Your task to perform on an android device: turn on airplane mode Image 0: 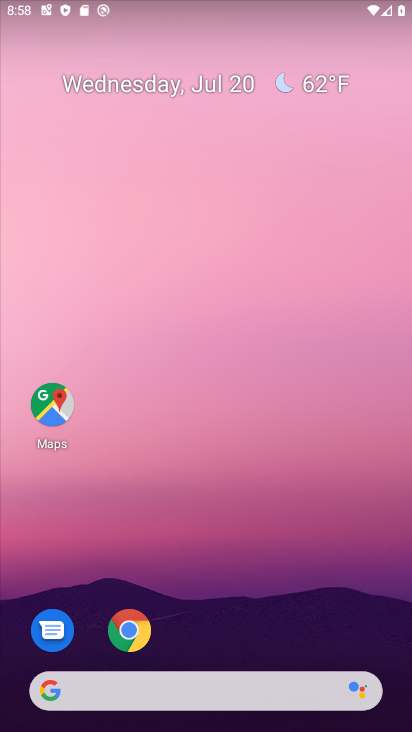
Step 0: drag from (187, 684) to (200, 118)
Your task to perform on an android device: turn on airplane mode Image 1: 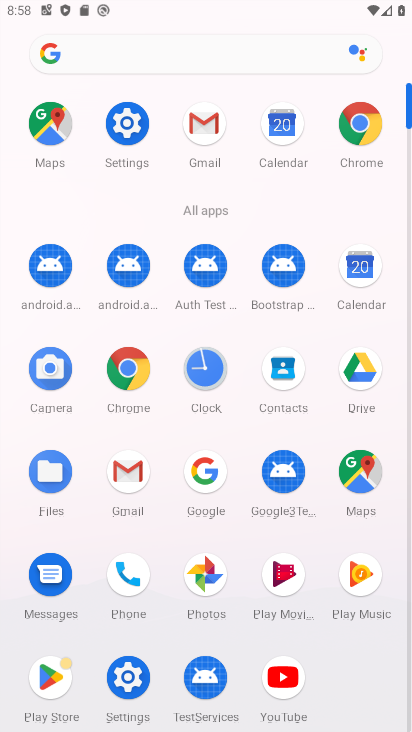
Step 1: click (127, 695)
Your task to perform on an android device: turn on airplane mode Image 2: 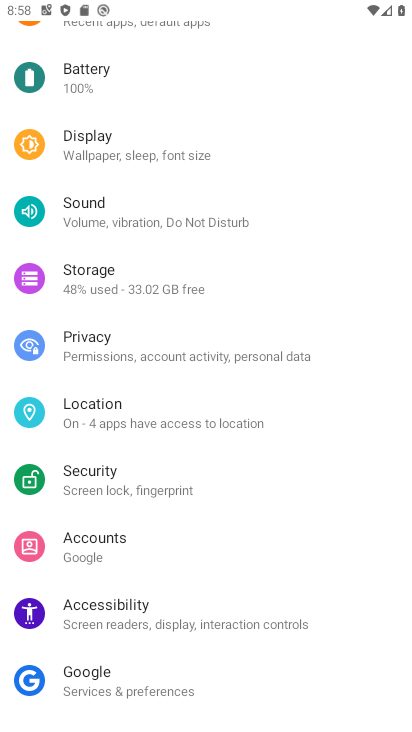
Step 2: drag from (204, 182) to (157, 615)
Your task to perform on an android device: turn on airplane mode Image 3: 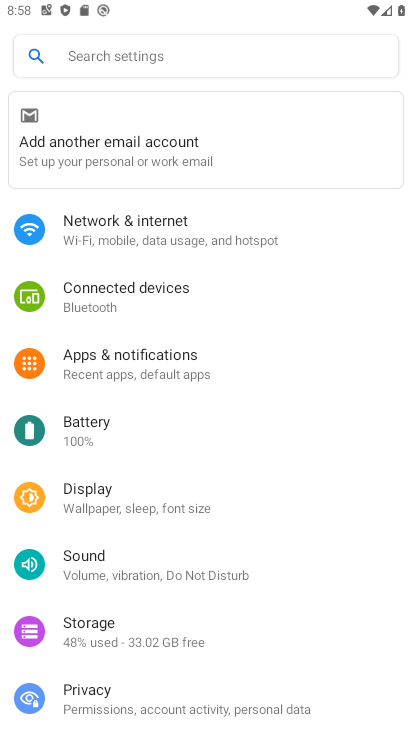
Step 3: click (118, 225)
Your task to perform on an android device: turn on airplane mode Image 4: 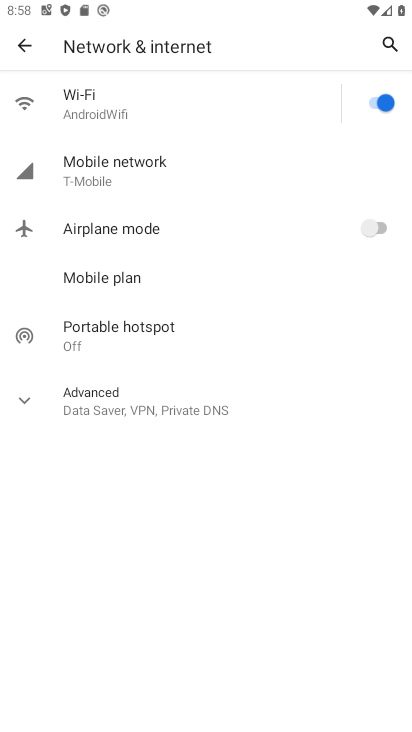
Step 4: click (373, 230)
Your task to perform on an android device: turn on airplane mode Image 5: 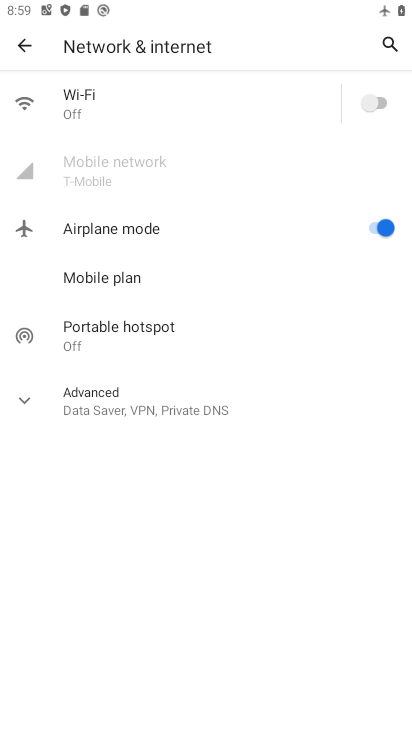
Step 5: task complete